Your task to perform on an android device: Go to Android settings Image 0: 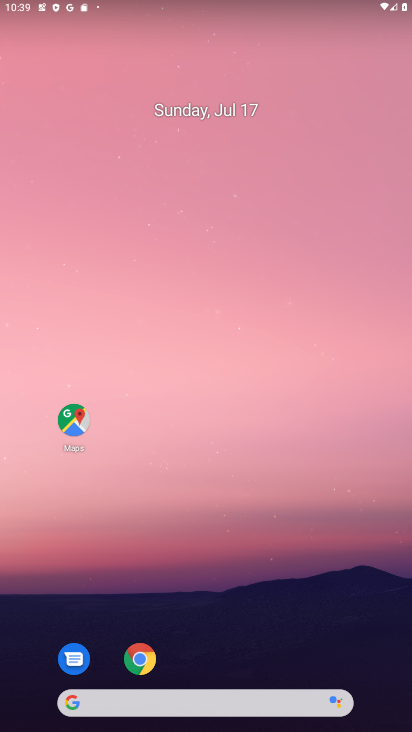
Step 0: drag from (225, 633) to (247, 142)
Your task to perform on an android device: Go to Android settings Image 1: 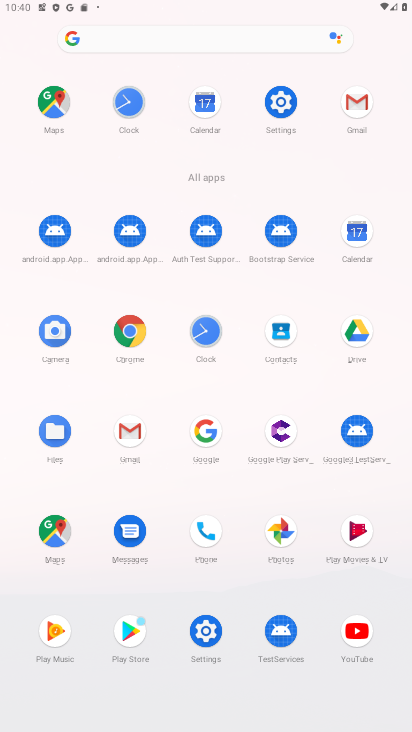
Step 1: click (292, 105)
Your task to perform on an android device: Go to Android settings Image 2: 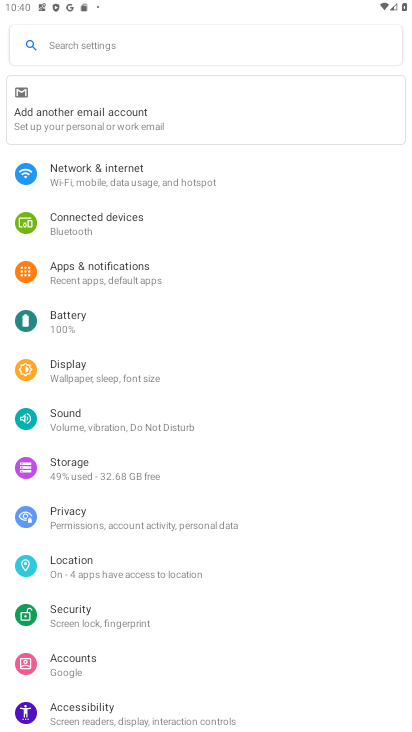
Step 2: task complete